Your task to perform on an android device: Go to Yahoo.com Image 0: 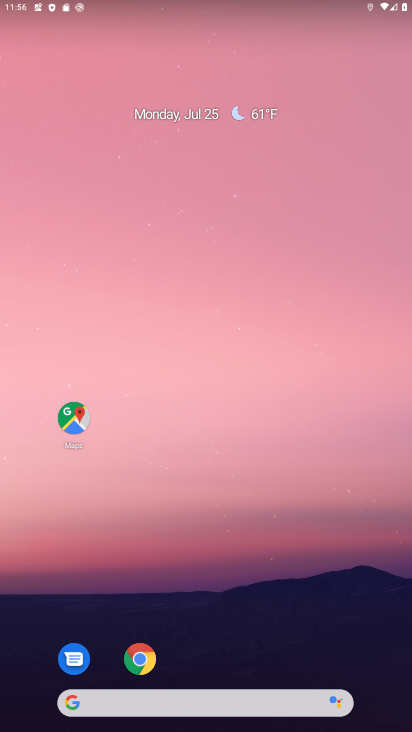
Step 0: click (141, 658)
Your task to perform on an android device: Go to Yahoo.com Image 1: 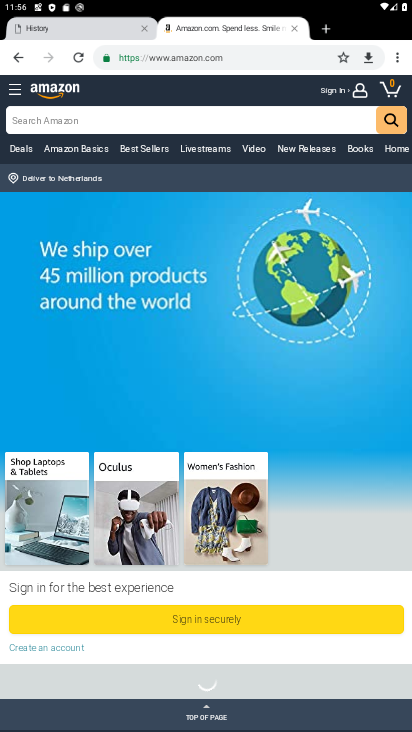
Step 1: click (398, 59)
Your task to perform on an android device: Go to Yahoo.com Image 2: 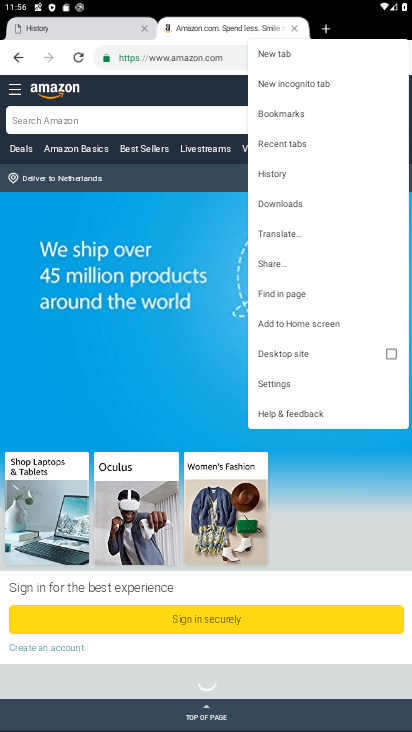
Step 2: click (278, 54)
Your task to perform on an android device: Go to Yahoo.com Image 3: 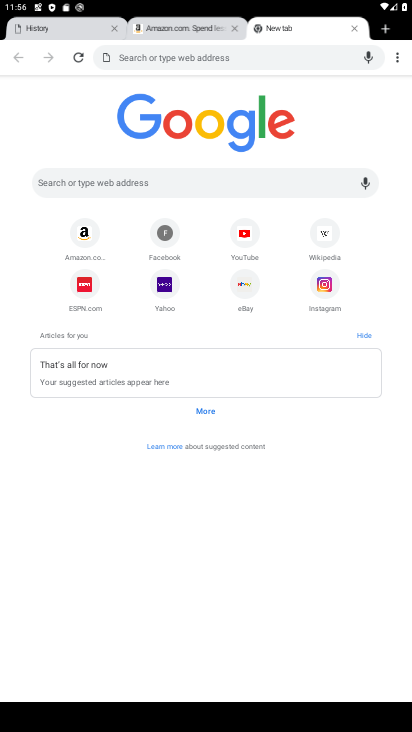
Step 3: click (166, 282)
Your task to perform on an android device: Go to Yahoo.com Image 4: 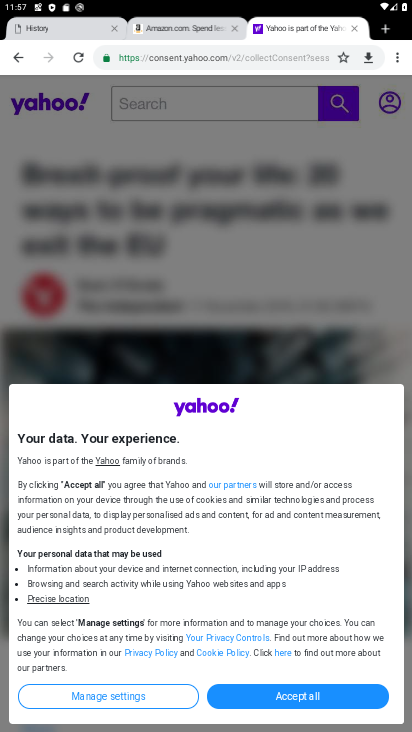
Step 4: task complete